Your task to perform on an android device: change text size in settings app Image 0: 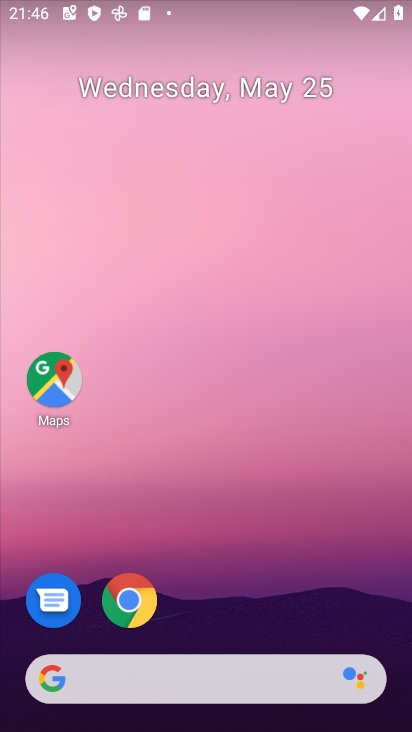
Step 0: drag from (324, 556) to (324, 156)
Your task to perform on an android device: change text size in settings app Image 1: 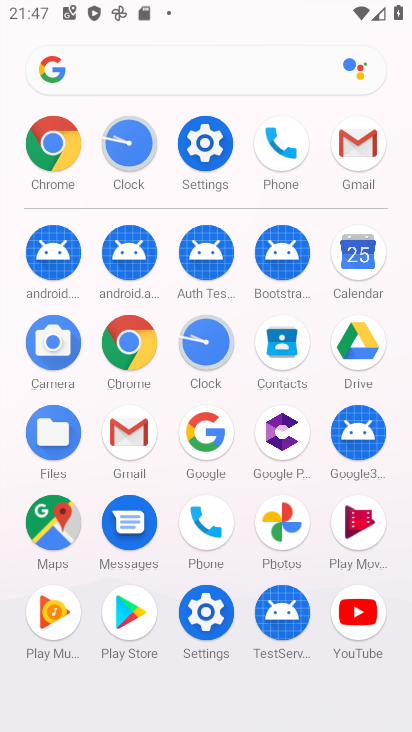
Step 1: click (194, 627)
Your task to perform on an android device: change text size in settings app Image 2: 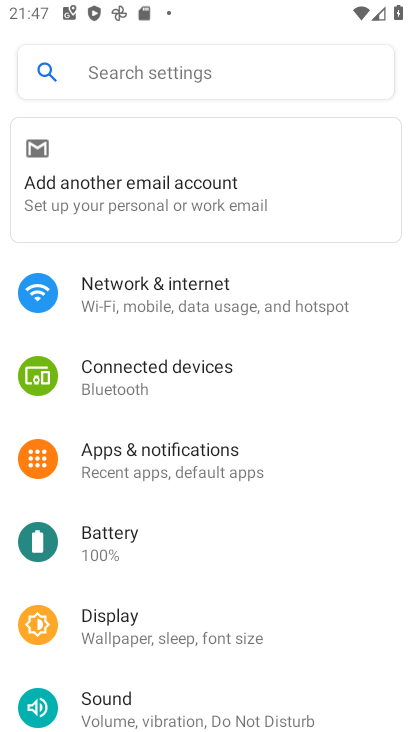
Step 2: click (180, 622)
Your task to perform on an android device: change text size in settings app Image 3: 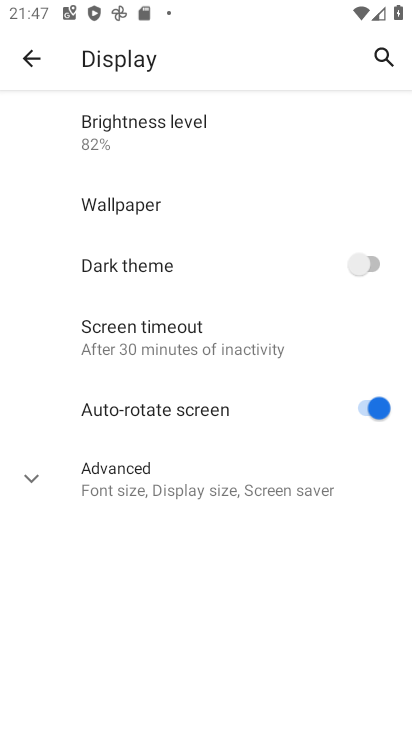
Step 3: click (118, 487)
Your task to perform on an android device: change text size in settings app Image 4: 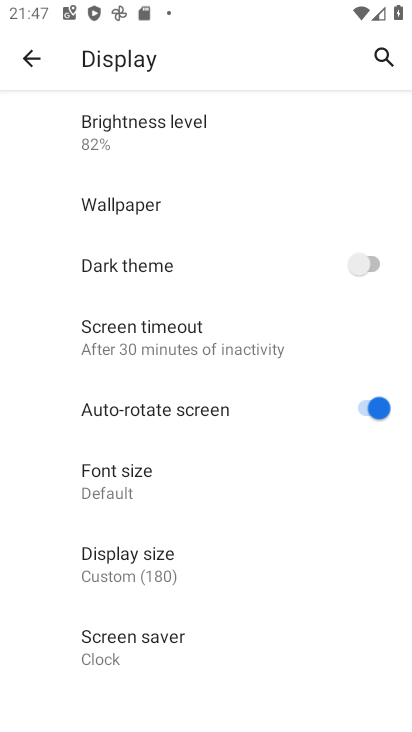
Step 4: click (131, 473)
Your task to perform on an android device: change text size in settings app Image 5: 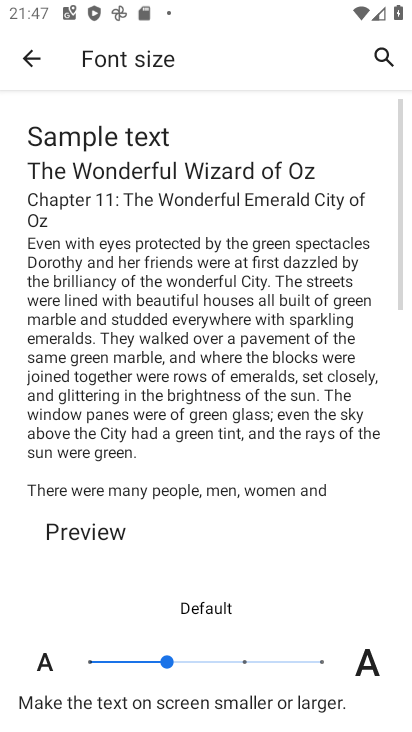
Step 5: click (97, 660)
Your task to perform on an android device: change text size in settings app Image 6: 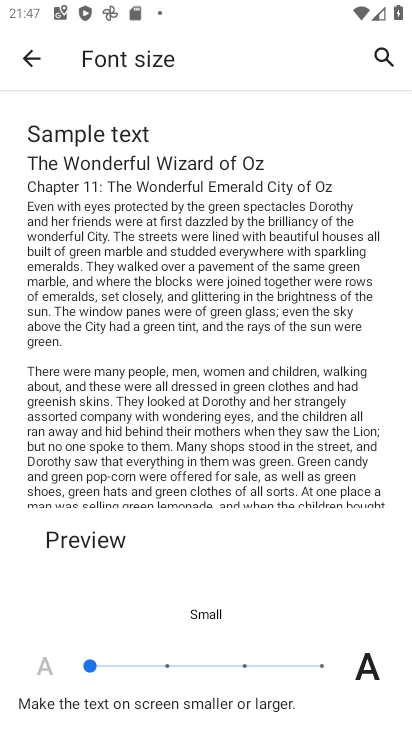
Step 6: task complete